Your task to perform on an android device: turn off priority inbox in the gmail app Image 0: 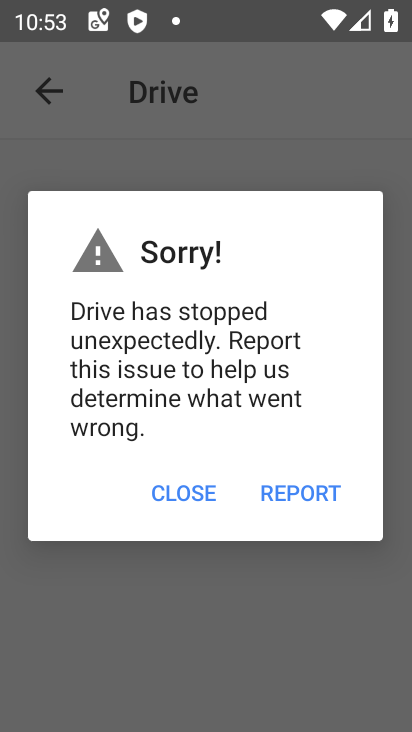
Step 0: press home button
Your task to perform on an android device: turn off priority inbox in the gmail app Image 1: 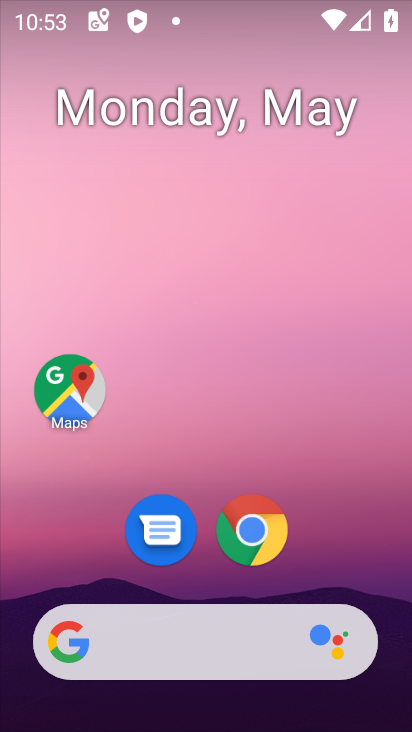
Step 1: drag from (348, 554) to (218, 168)
Your task to perform on an android device: turn off priority inbox in the gmail app Image 2: 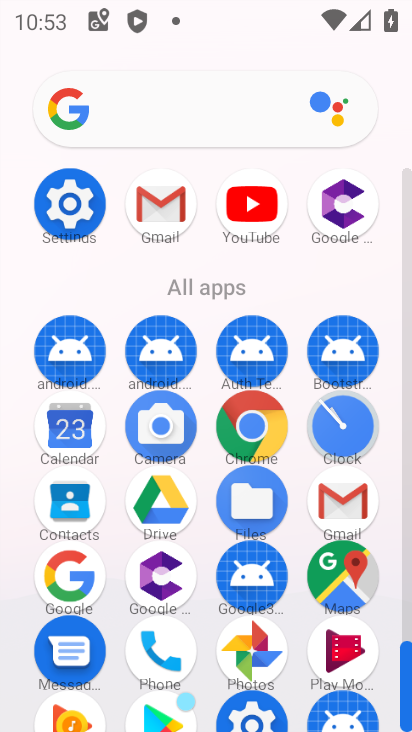
Step 2: click (160, 205)
Your task to perform on an android device: turn off priority inbox in the gmail app Image 3: 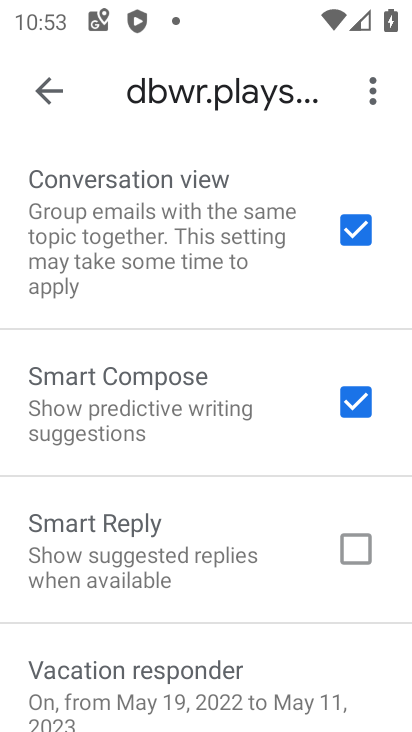
Step 3: drag from (258, 296) to (292, 433)
Your task to perform on an android device: turn off priority inbox in the gmail app Image 4: 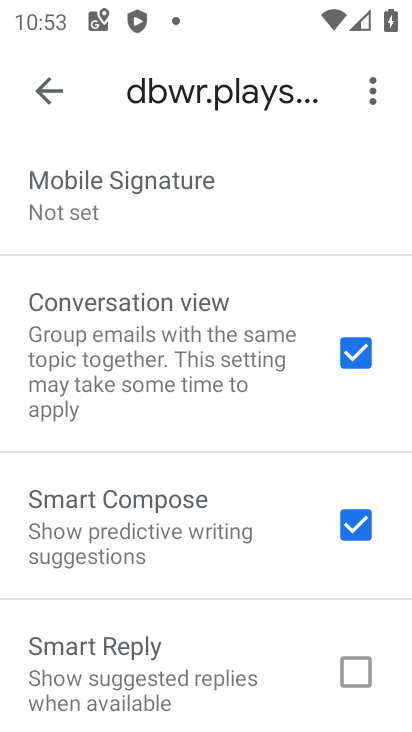
Step 4: drag from (228, 233) to (227, 379)
Your task to perform on an android device: turn off priority inbox in the gmail app Image 5: 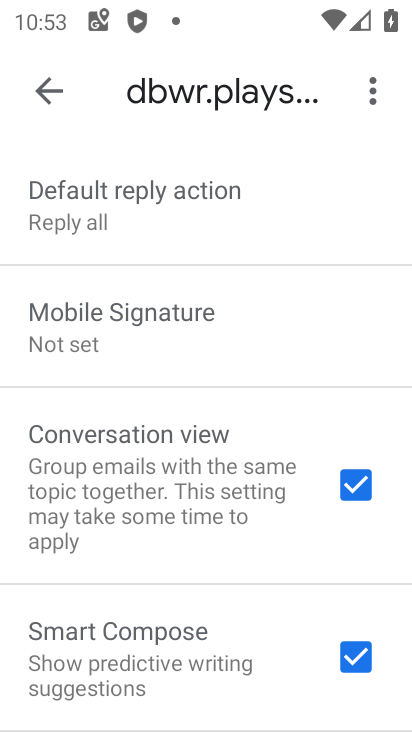
Step 5: drag from (208, 233) to (209, 383)
Your task to perform on an android device: turn off priority inbox in the gmail app Image 6: 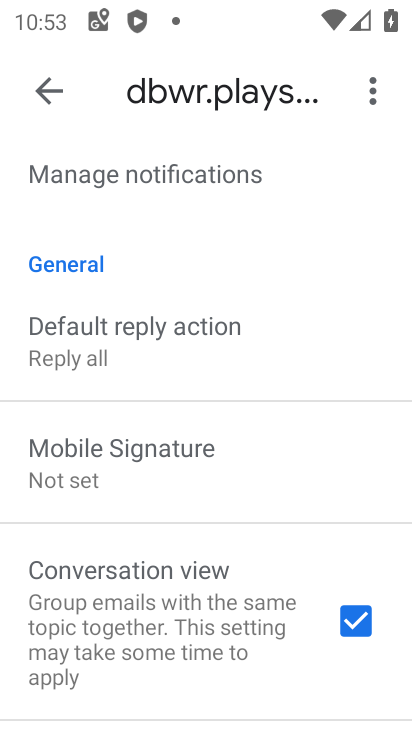
Step 6: drag from (183, 247) to (186, 382)
Your task to perform on an android device: turn off priority inbox in the gmail app Image 7: 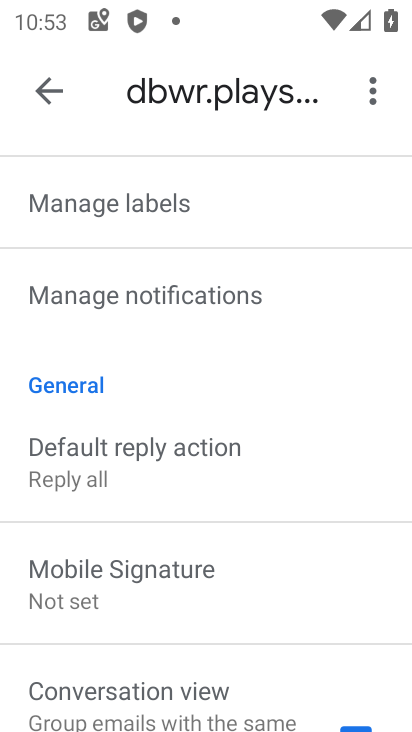
Step 7: drag from (224, 216) to (209, 569)
Your task to perform on an android device: turn off priority inbox in the gmail app Image 8: 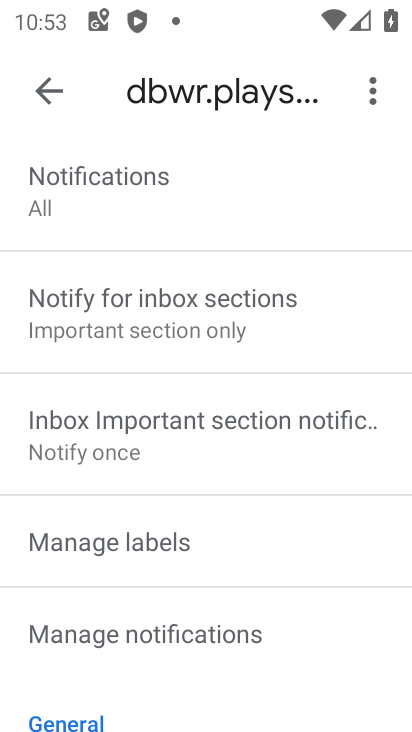
Step 8: drag from (168, 223) to (202, 561)
Your task to perform on an android device: turn off priority inbox in the gmail app Image 9: 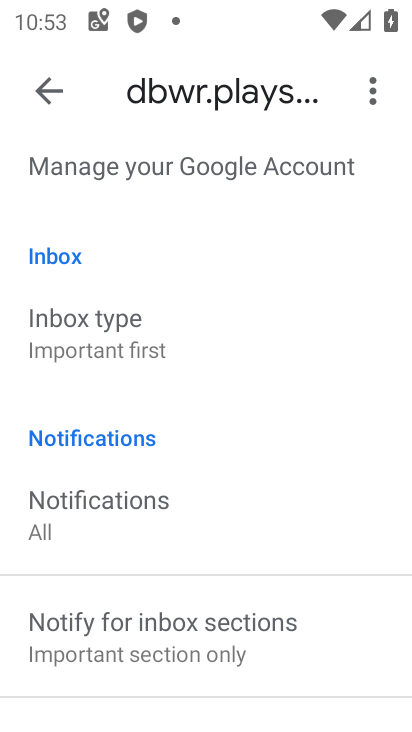
Step 9: click (108, 343)
Your task to perform on an android device: turn off priority inbox in the gmail app Image 10: 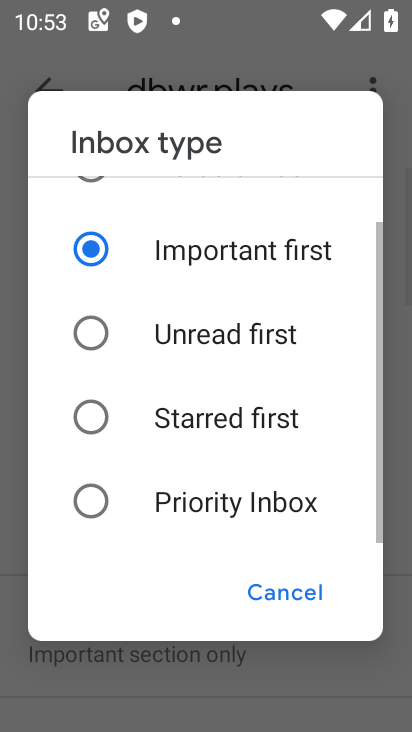
Step 10: click (92, 248)
Your task to perform on an android device: turn off priority inbox in the gmail app Image 11: 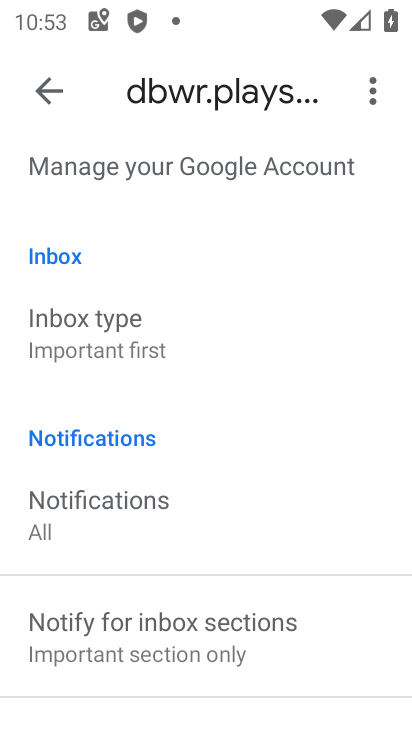
Step 11: task complete